Your task to perform on an android device: change text size in settings app Image 0: 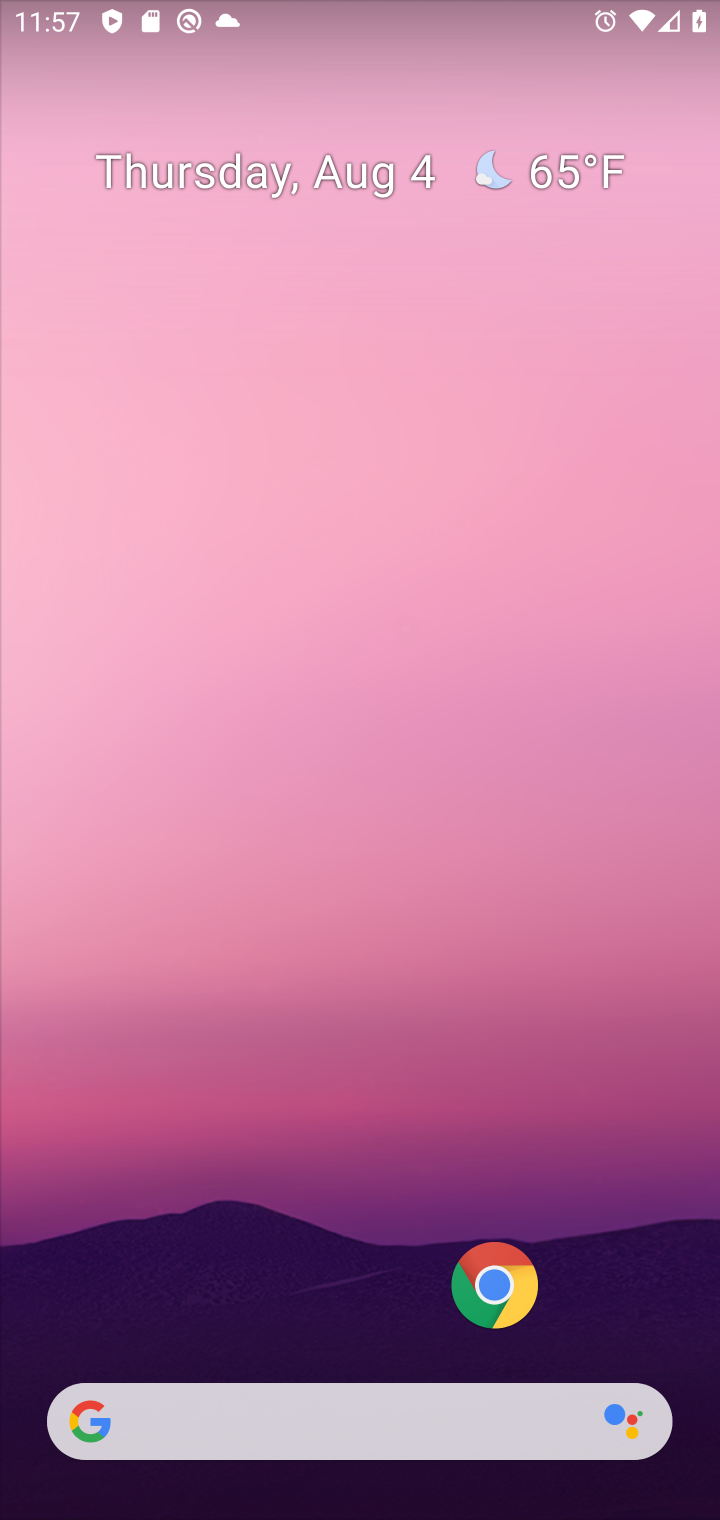
Step 0: drag from (201, 1272) to (154, 220)
Your task to perform on an android device: change text size in settings app Image 1: 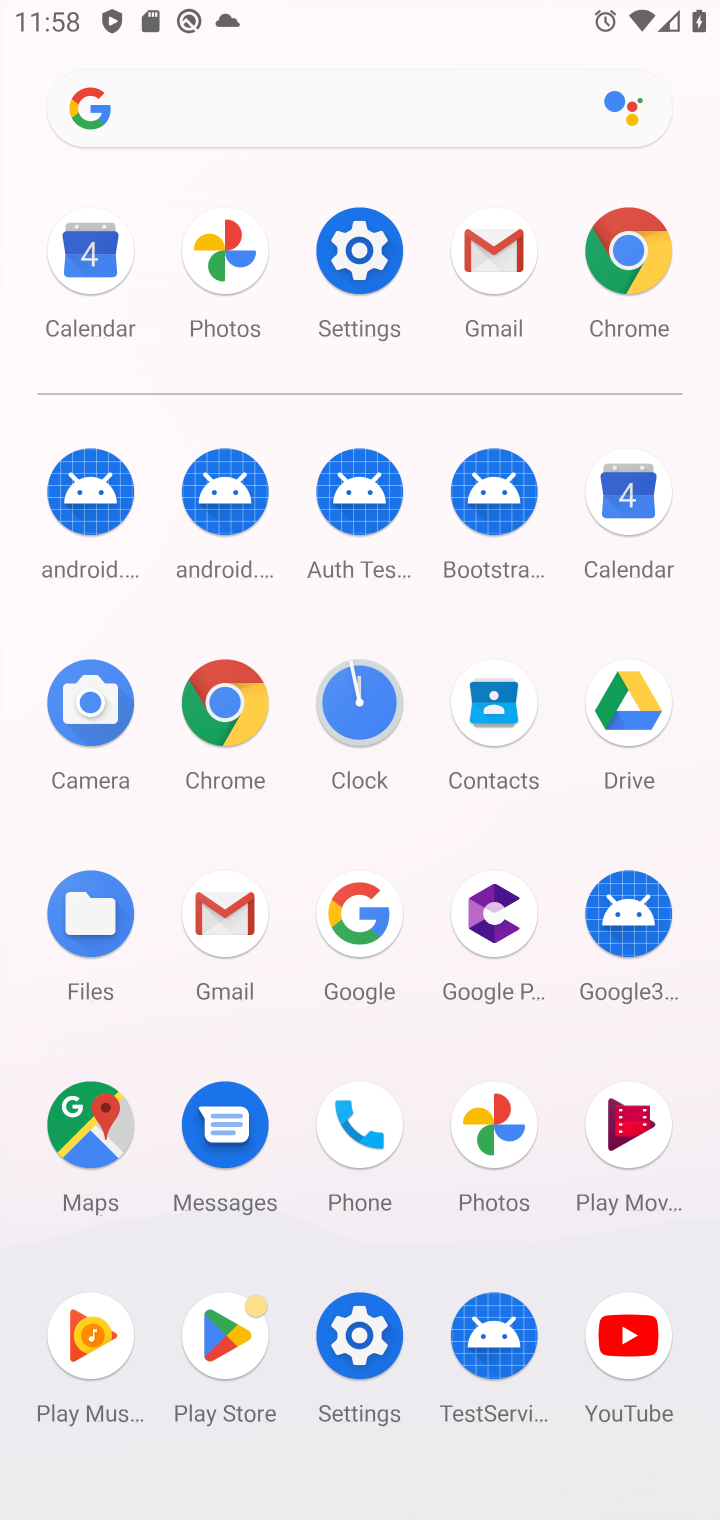
Step 1: click (343, 1417)
Your task to perform on an android device: change text size in settings app Image 2: 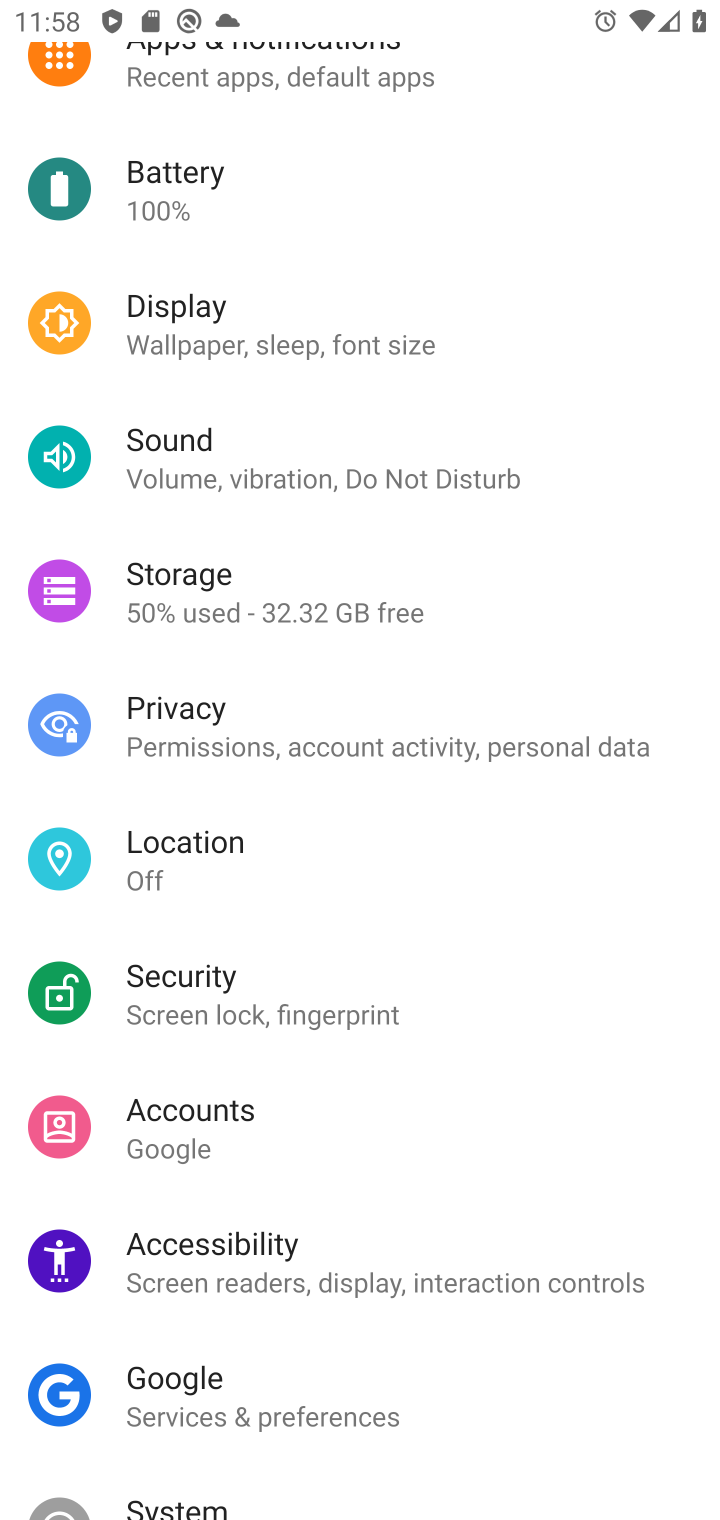
Step 2: click (207, 357)
Your task to perform on an android device: change text size in settings app Image 3: 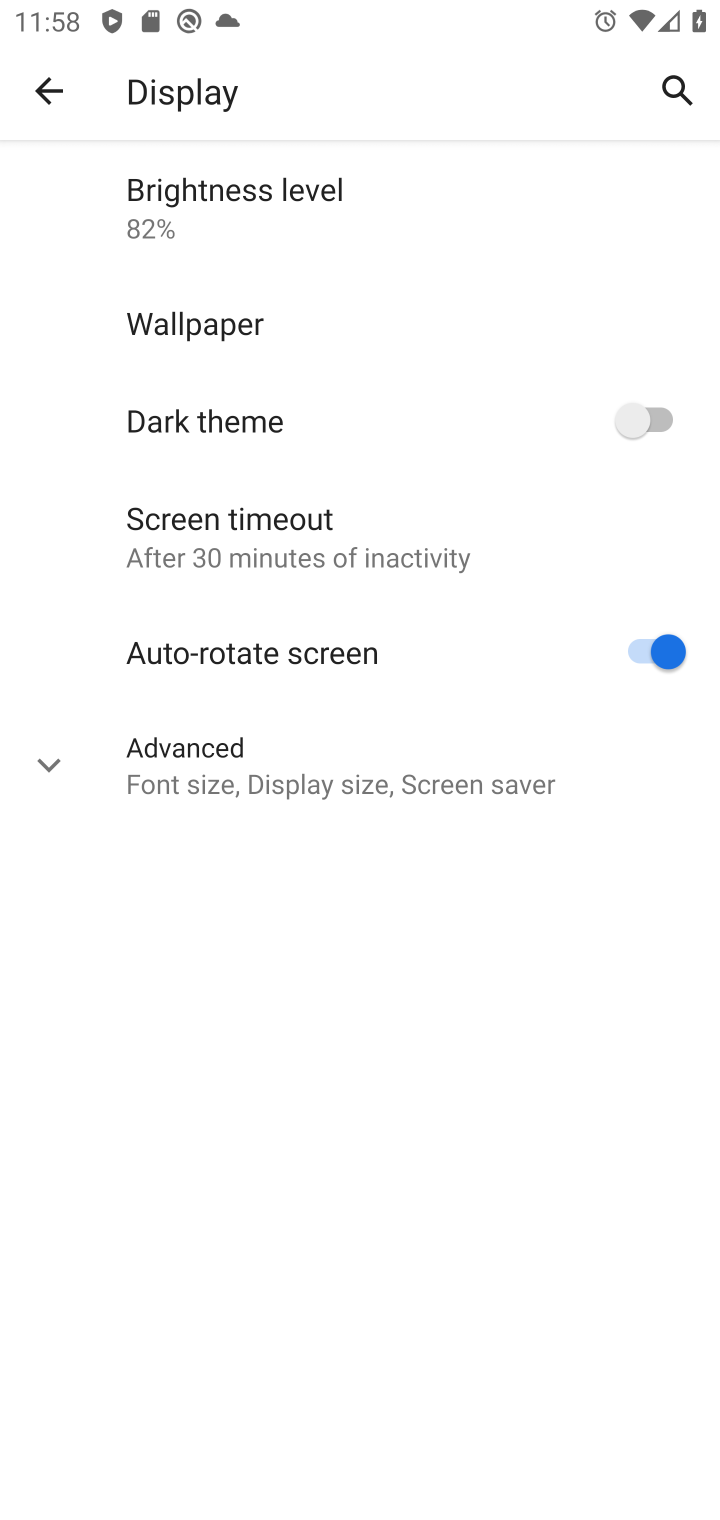
Step 3: click (321, 747)
Your task to perform on an android device: change text size in settings app Image 4: 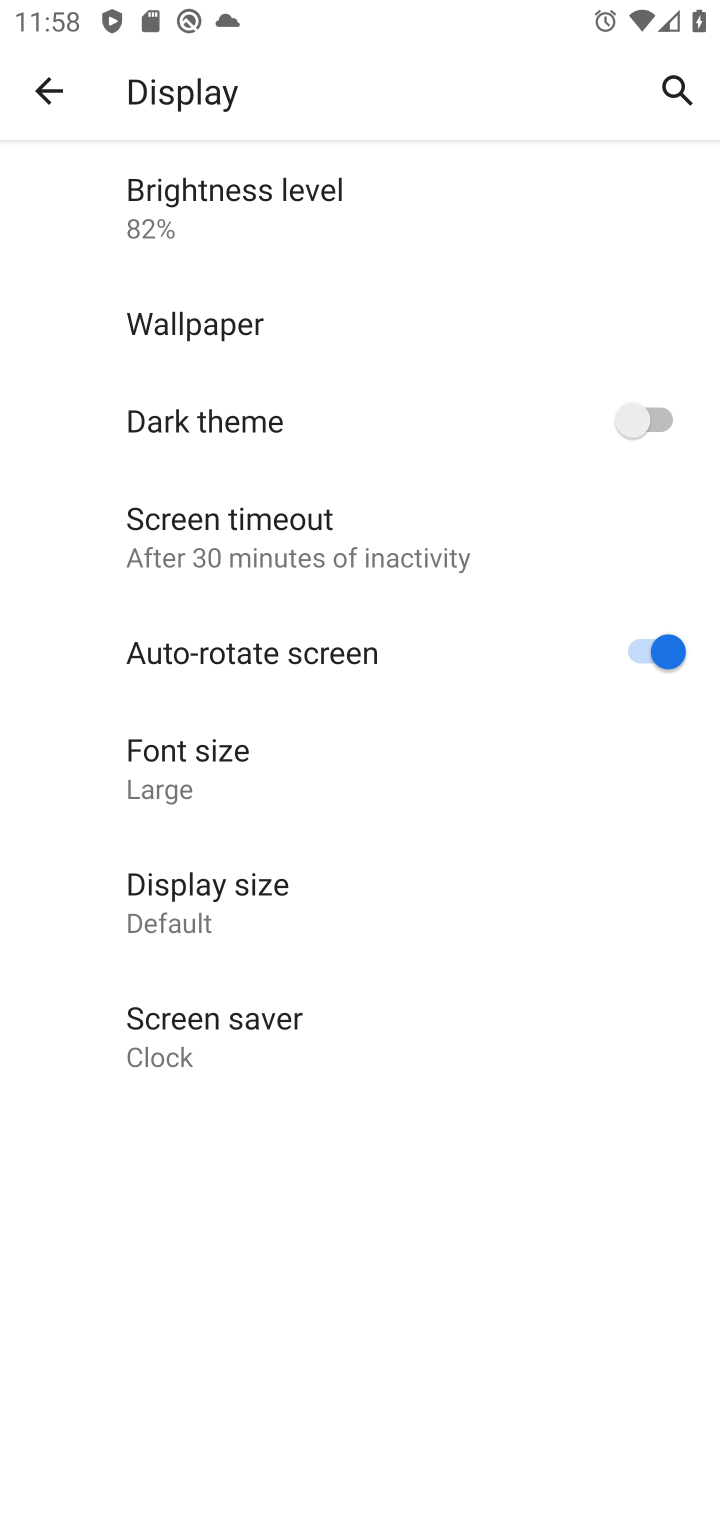
Step 4: click (331, 765)
Your task to perform on an android device: change text size in settings app Image 5: 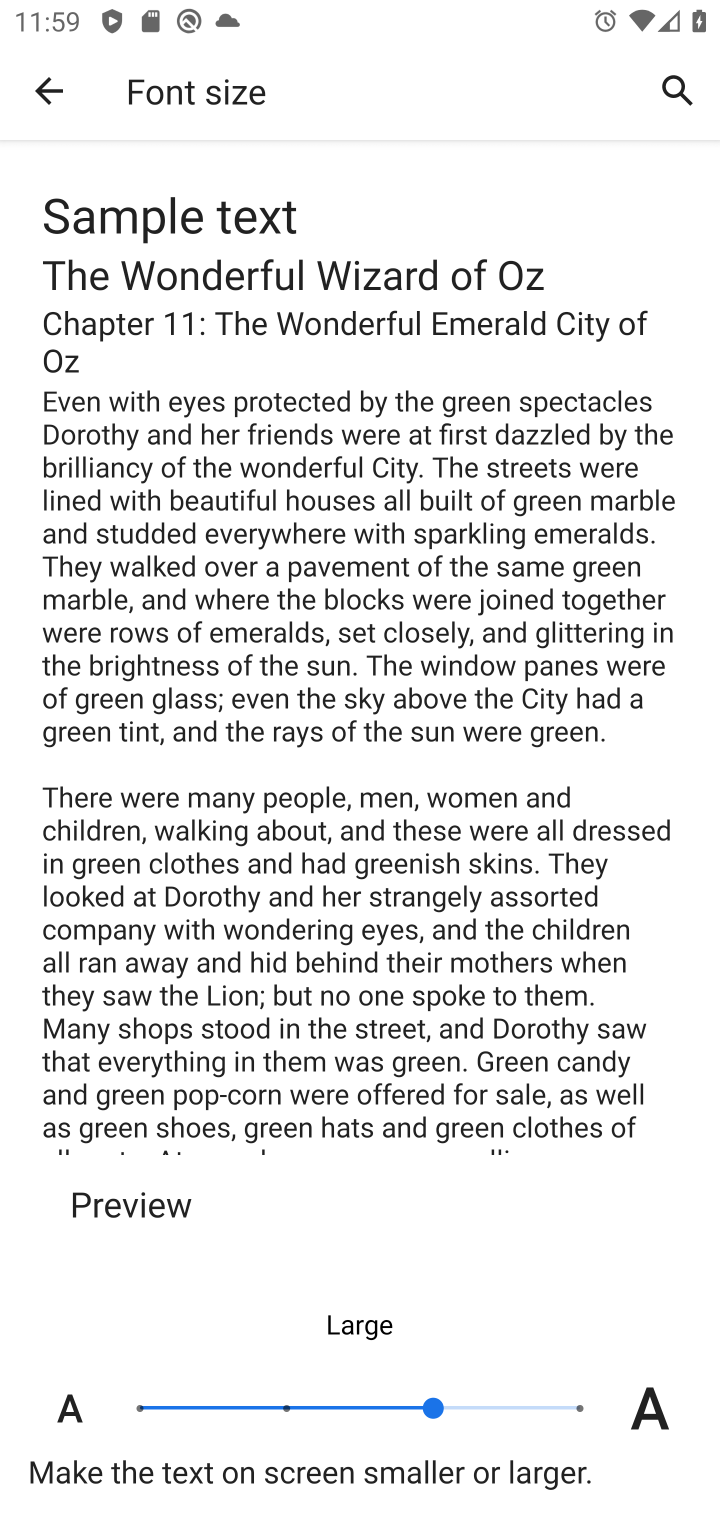
Step 5: click (624, 1389)
Your task to perform on an android device: change text size in settings app Image 6: 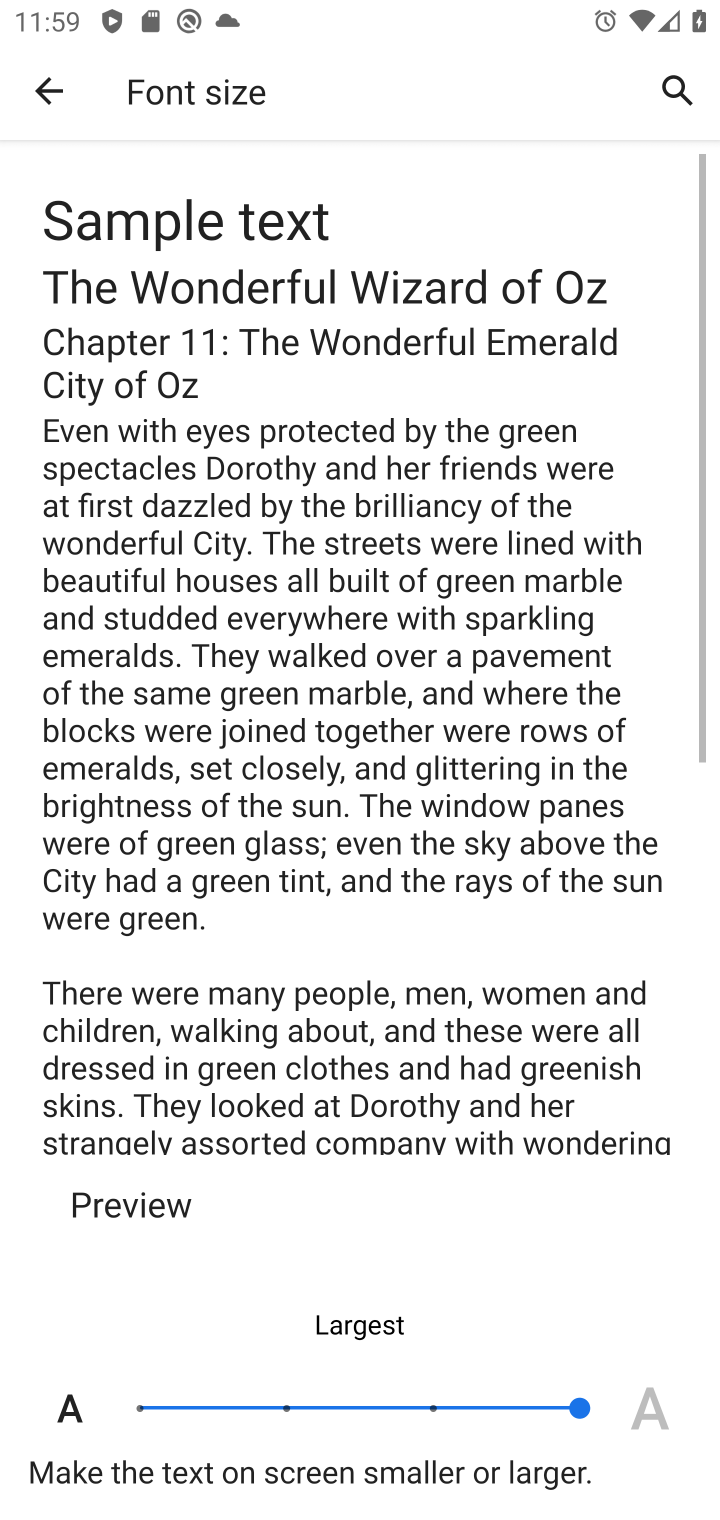
Step 6: task complete